Your task to perform on an android device: What's the weather today? Image 0: 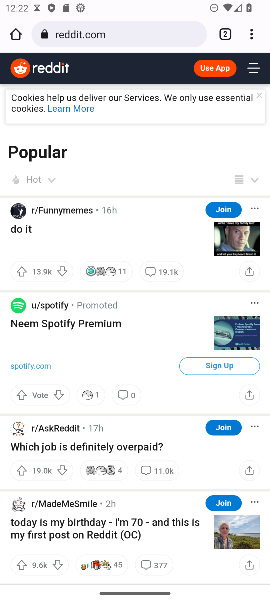
Step 0: press home button
Your task to perform on an android device: What's the weather today? Image 1: 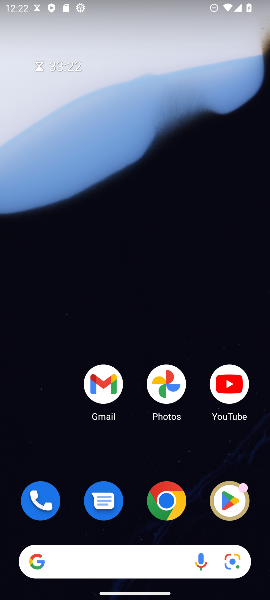
Step 1: click (119, 557)
Your task to perform on an android device: What's the weather today? Image 2: 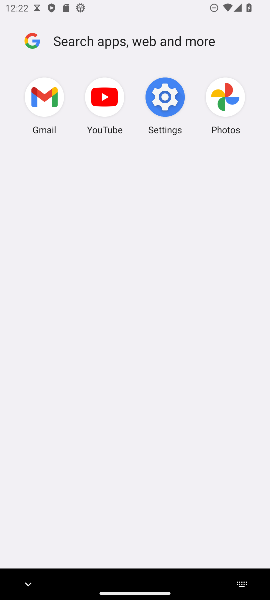
Step 2: type "wheather"
Your task to perform on an android device: What's the weather today? Image 3: 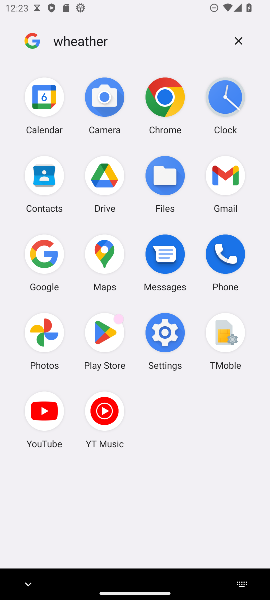
Step 3: click (36, 258)
Your task to perform on an android device: What's the weather today? Image 4: 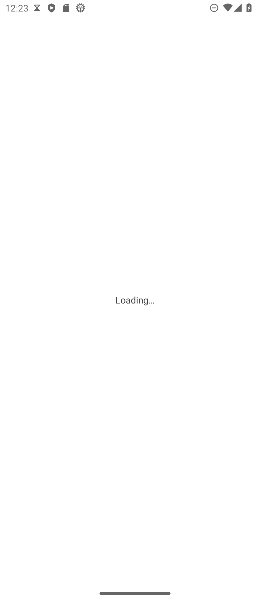
Step 4: task complete